Your task to perform on an android device: read, delete, or share a saved page in the chrome app Image 0: 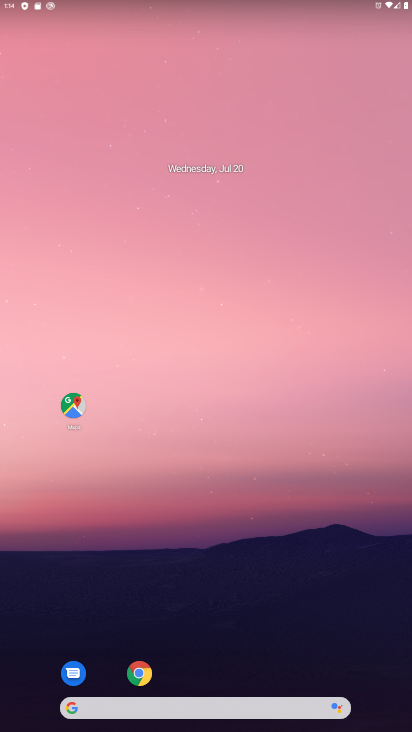
Step 0: drag from (339, 672) to (300, 189)
Your task to perform on an android device: read, delete, or share a saved page in the chrome app Image 1: 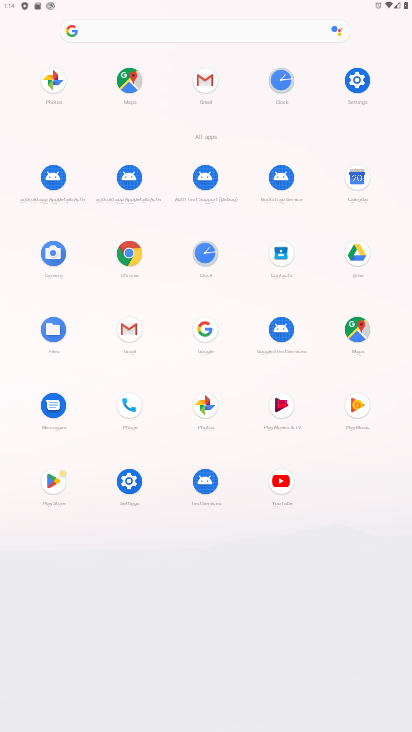
Step 1: click (132, 251)
Your task to perform on an android device: read, delete, or share a saved page in the chrome app Image 2: 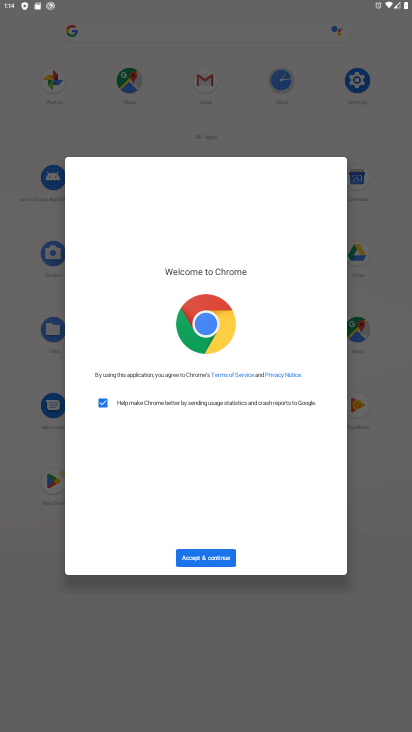
Step 2: click (216, 563)
Your task to perform on an android device: read, delete, or share a saved page in the chrome app Image 3: 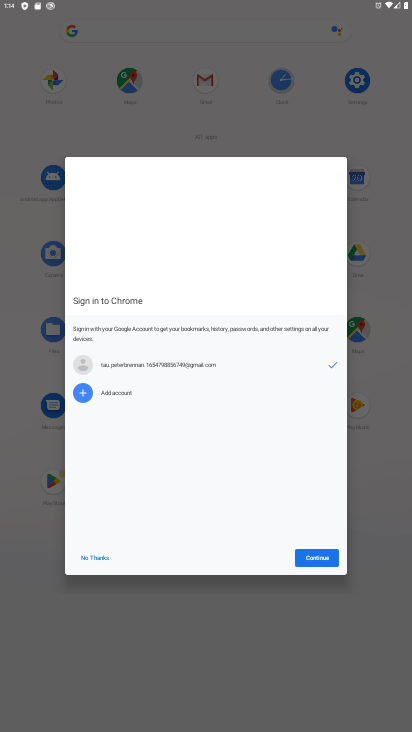
Step 3: click (325, 561)
Your task to perform on an android device: read, delete, or share a saved page in the chrome app Image 4: 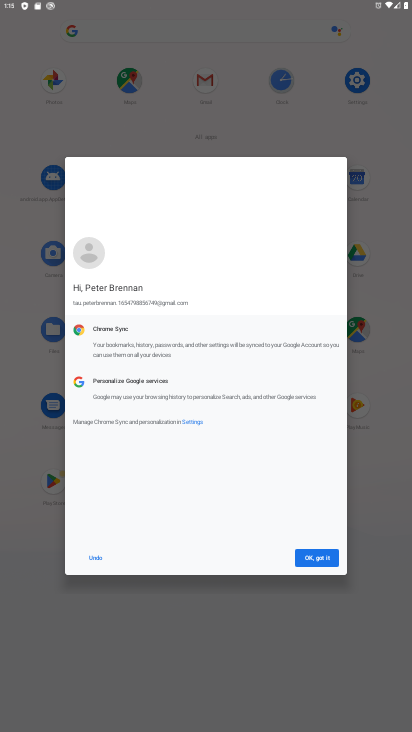
Step 4: click (325, 561)
Your task to perform on an android device: read, delete, or share a saved page in the chrome app Image 5: 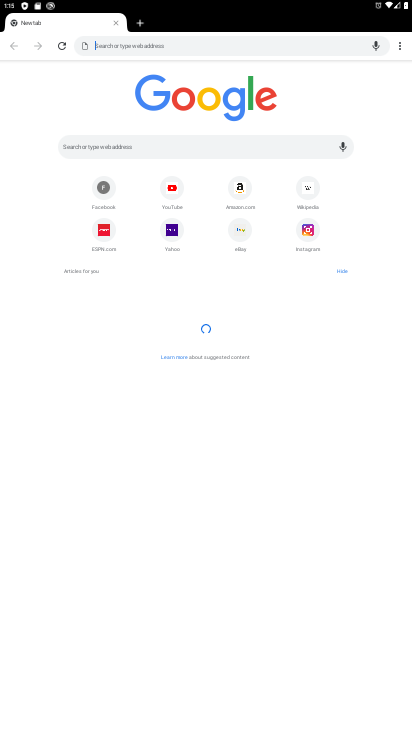
Step 5: click (398, 50)
Your task to perform on an android device: read, delete, or share a saved page in the chrome app Image 6: 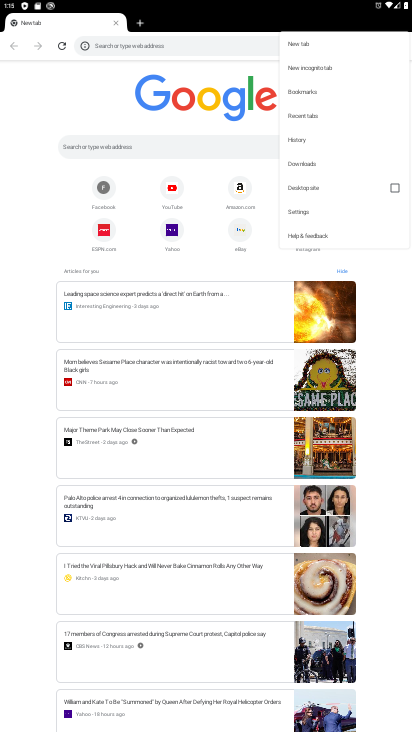
Step 6: click (316, 210)
Your task to perform on an android device: read, delete, or share a saved page in the chrome app Image 7: 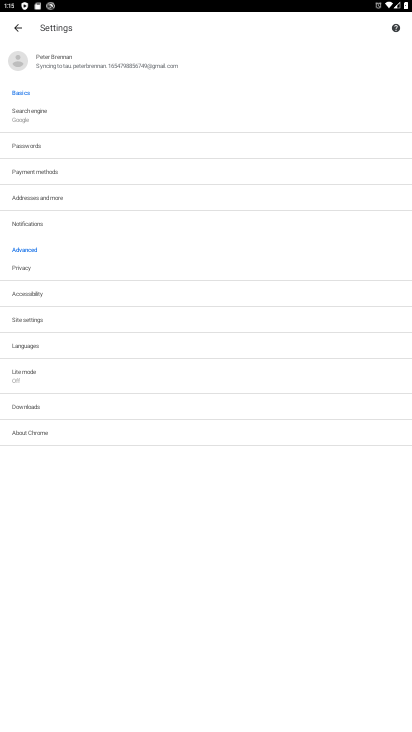
Step 7: click (20, 24)
Your task to perform on an android device: read, delete, or share a saved page in the chrome app Image 8: 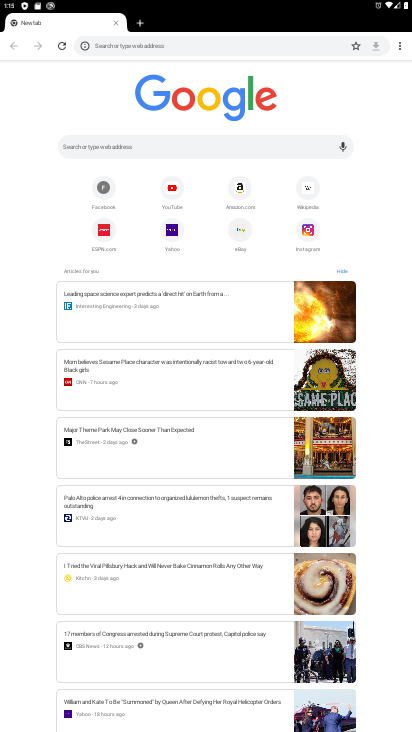
Step 8: click (400, 46)
Your task to perform on an android device: read, delete, or share a saved page in the chrome app Image 9: 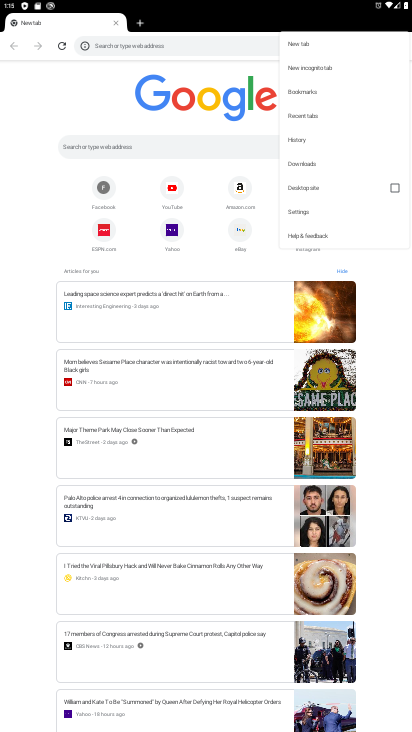
Step 9: click (311, 160)
Your task to perform on an android device: read, delete, or share a saved page in the chrome app Image 10: 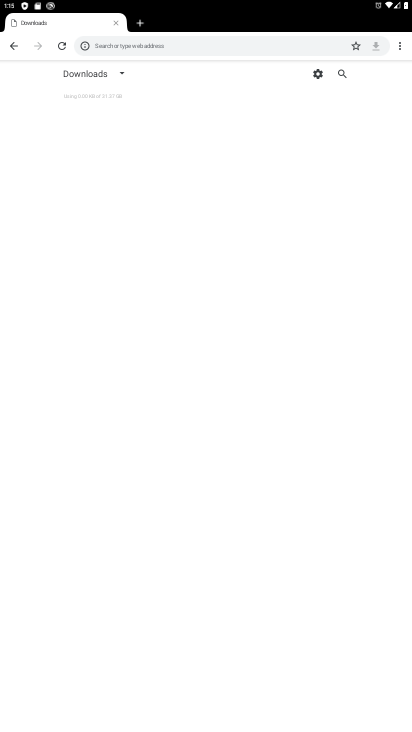
Step 10: click (111, 67)
Your task to perform on an android device: read, delete, or share a saved page in the chrome app Image 11: 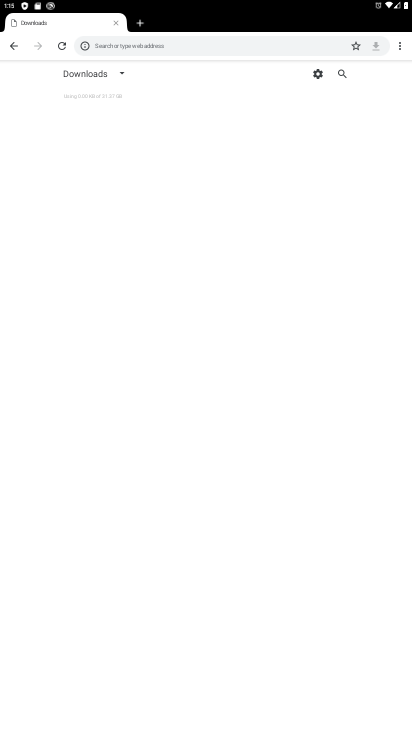
Step 11: click (118, 74)
Your task to perform on an android device: read, delete, or share a saved page in the chrome app Image 12: 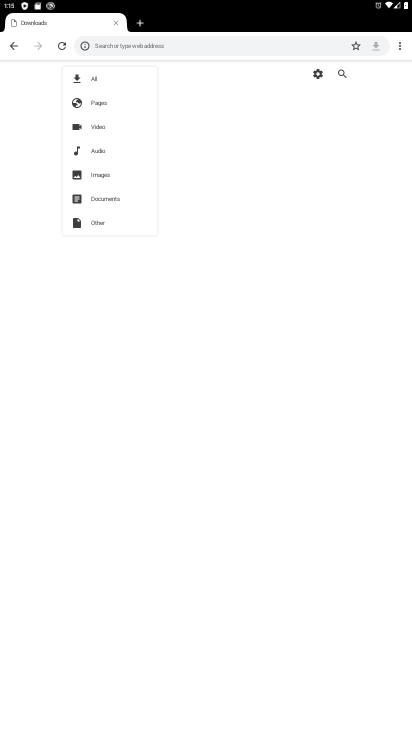
Step 12: click (108, 100)
Your task to perform on an android device: read, delete, or share a saved page in the chrome app Image 13: 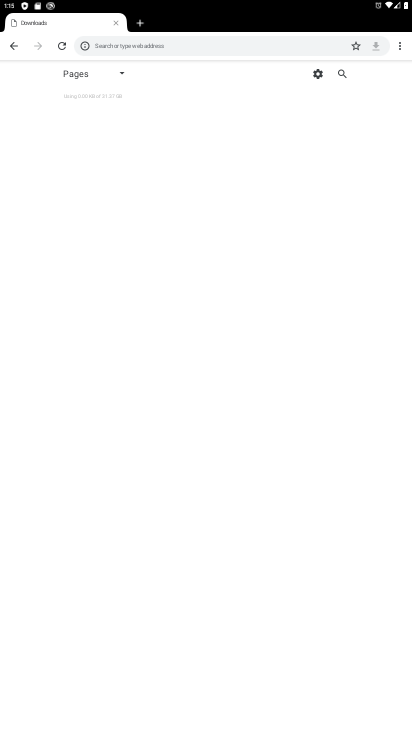
Step 13: task complete